Your task to perform on an android device: Go to wifi settings Image 0: 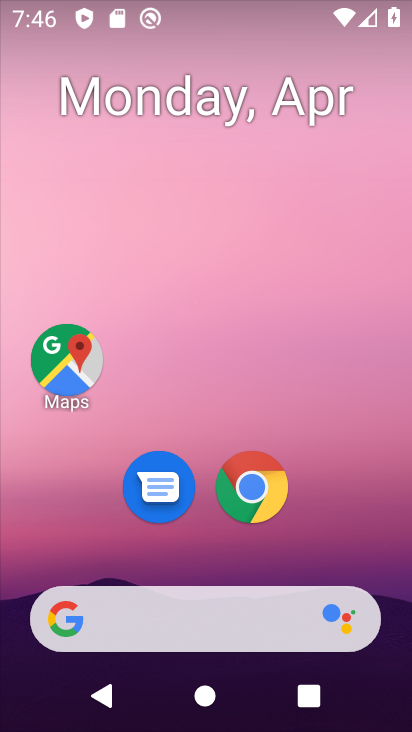
Step 0: drag from (330, 546) to (340, 4)
Your task to perform on an android device: Go to wifi settings Image 1: 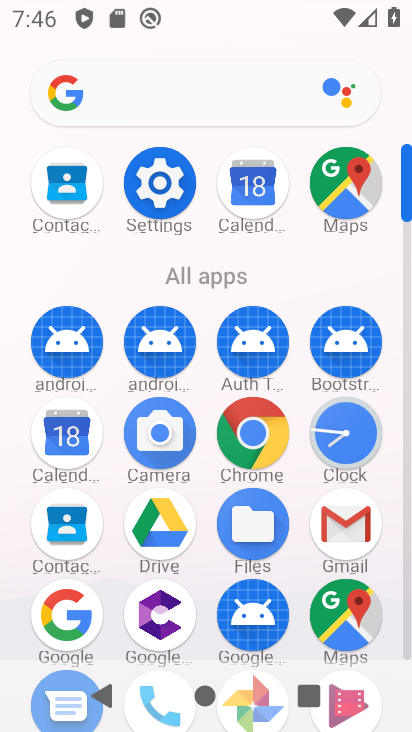
Step 1: click (161, 202)
Your task to perform on an android device: Go to wifi settings Image 2: 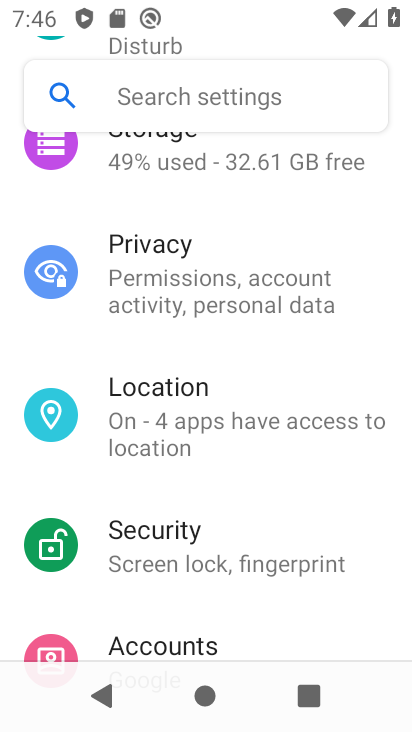
Step 2: drag from (378, 311) to (370, 471)
Your task to perform on an android device: Go to wifi settings Image 3: 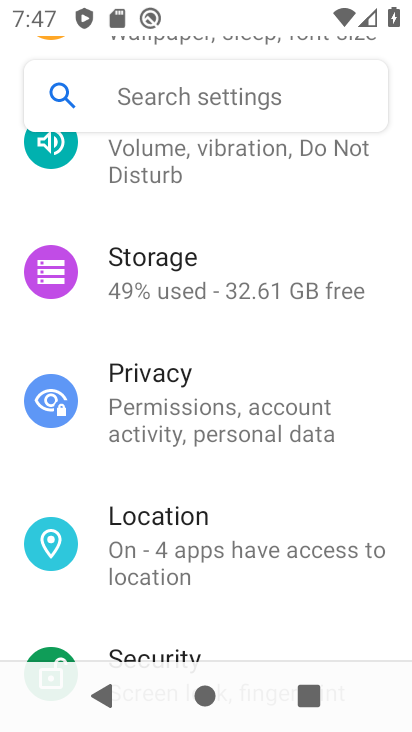
Step 3: drag from (390, 231) to (395, 437)
Your task to perform on an android device: Go to wifi settings Image 4: 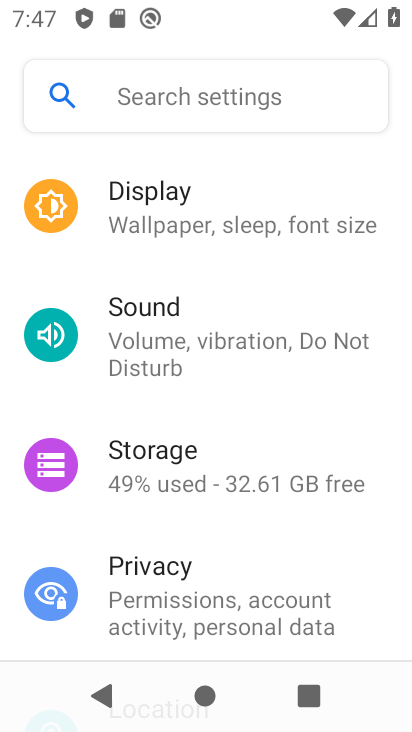
Step 4: drag from (393, 278) to (391, 446)
Your task to perform on an android device: Go to wifi settings Image 5: 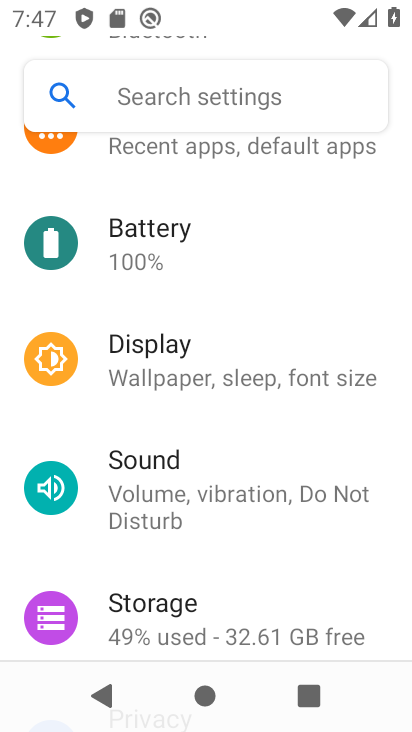
Step 5: drag from (394, 267) to (383, 426)
Your task to perform on an android device: Go to wifi settings Image 6: 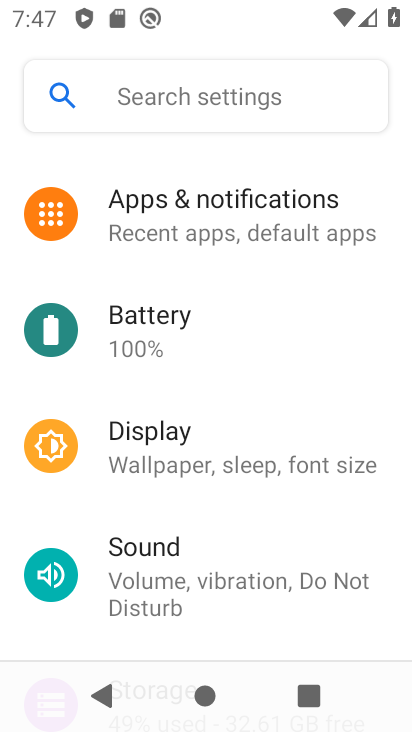
Step 6: drag from (395, 258) to (393, 359)
Your task to perform on an android device: Go to wifi settings Image 7: 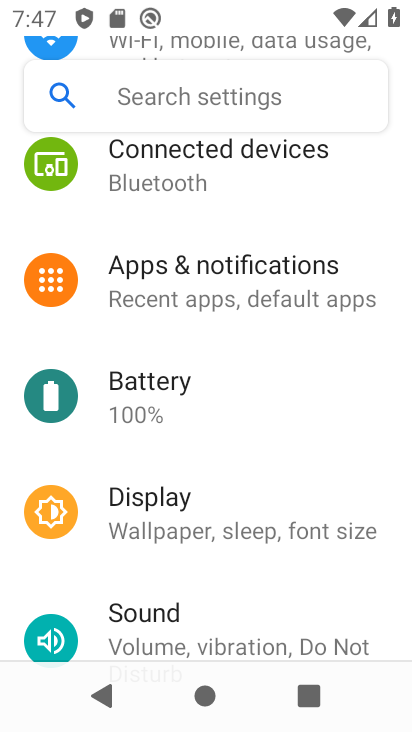
Step 7: drag from (398, 189) to (375, 403)
Your task to perform on an android device: Go to wifi settings Image 8: 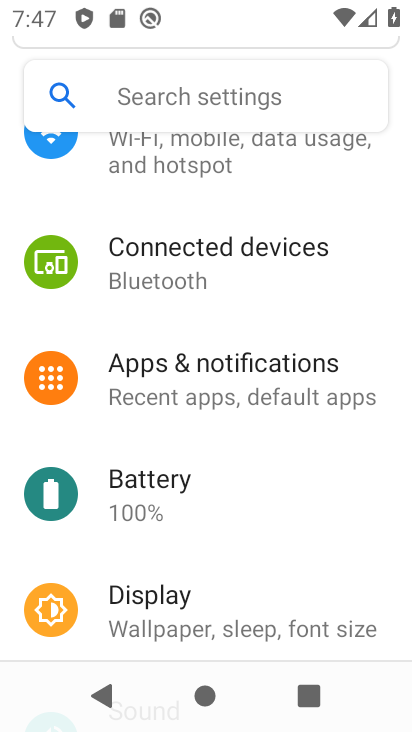
Step 8: drag from (400, 199) to (395, 482)
Your task to perform on an android device: Go to wifi settings Image 9: 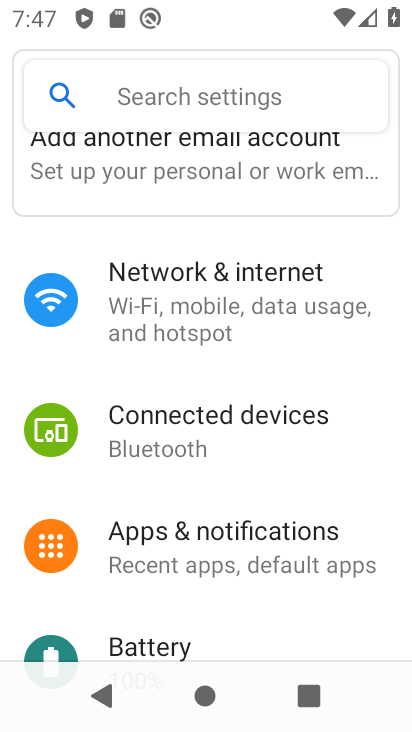
Step 9: click (305, 293)
Your task to perform on an android device: Go to wifi settings Image 10: 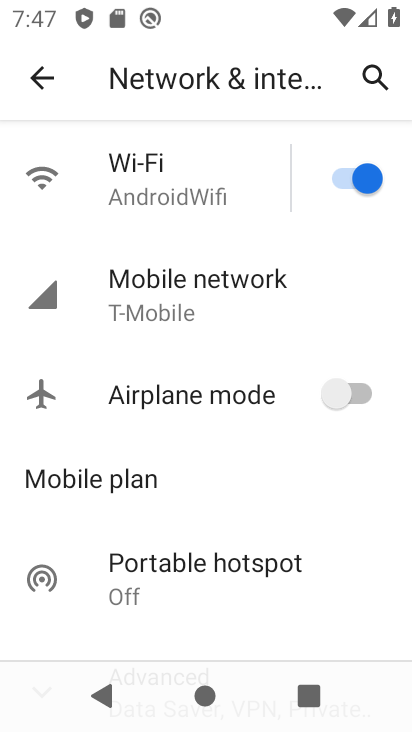
Step 10: click (163, 172)
Your task to perform on an android device: Go to wifi settings Image 11: 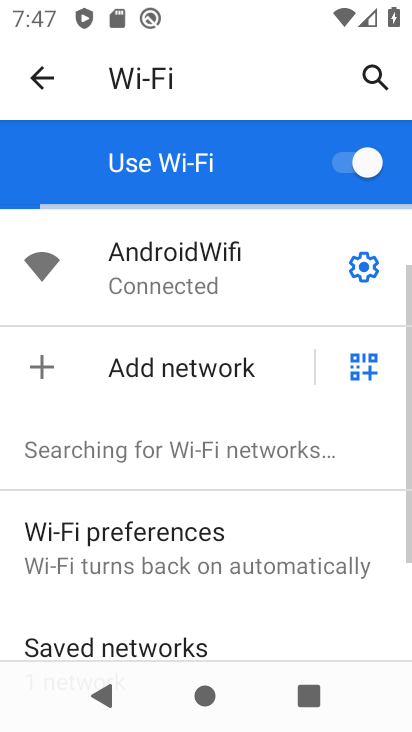
Step 11: task complete